Your task to perform on an android device: Open maps Image 0: 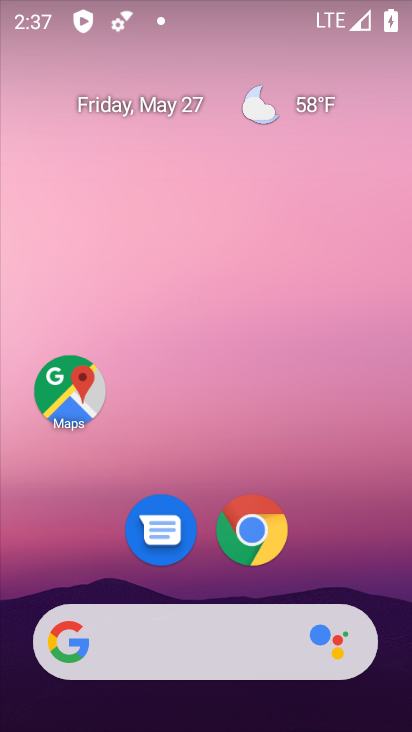
Step 0: click (74, 398)
Your task to perform on an android device: Open maps Image 1: 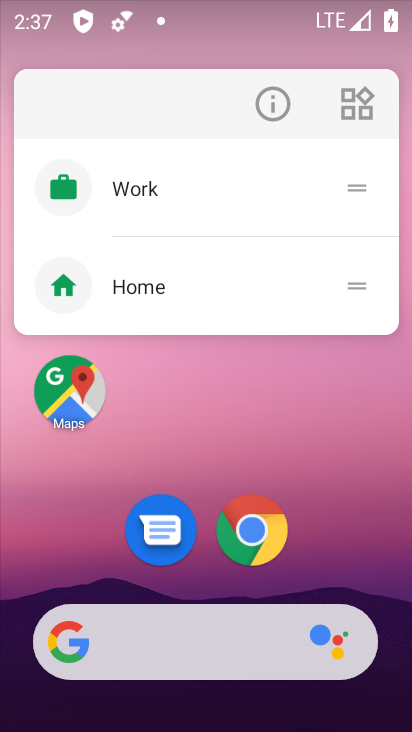
Step 1: click (79, 399)
Your task to perform on an android device: Open maps Image 2: 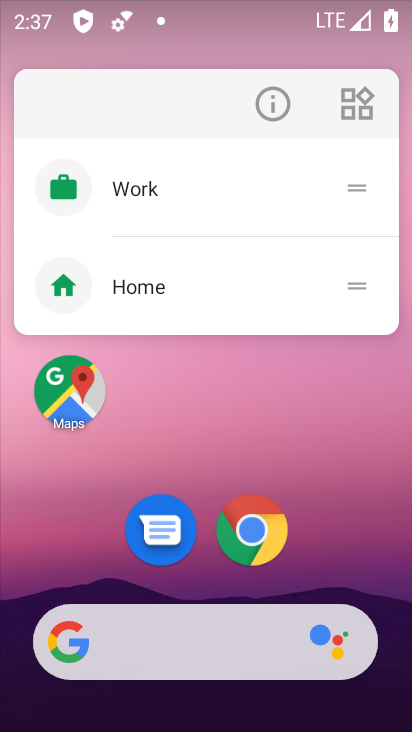
Step 2: click (80, 398)
Your task to perform on an android device: Open maps Image 3: 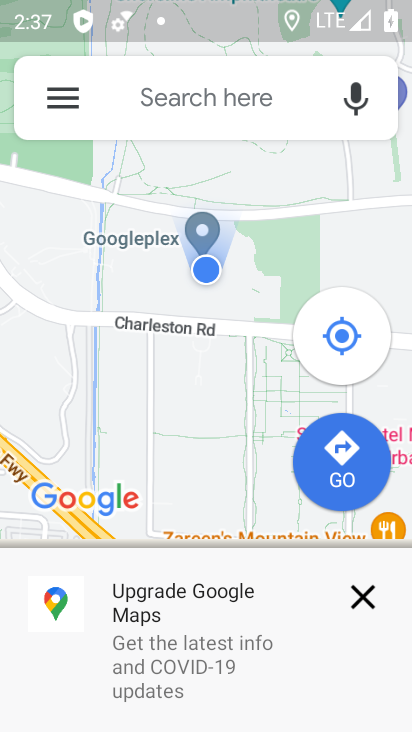
Step 3: click (368, 602)
Your task to perform on an android device: Open maps Image 4: 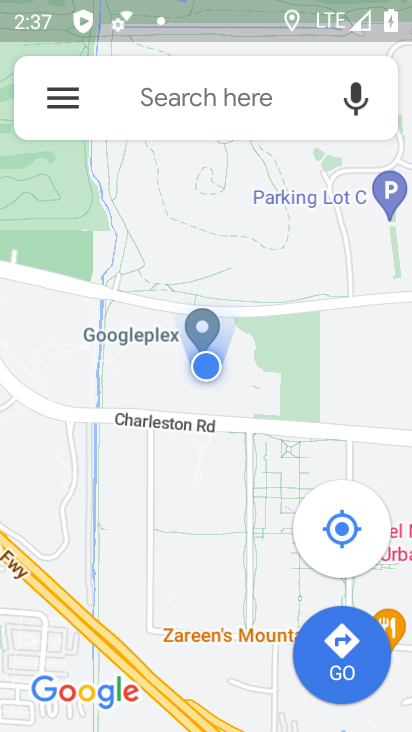
Step 4: task complete